Your task to perform on an android device: turn pop-ups off in chrome Image 0: 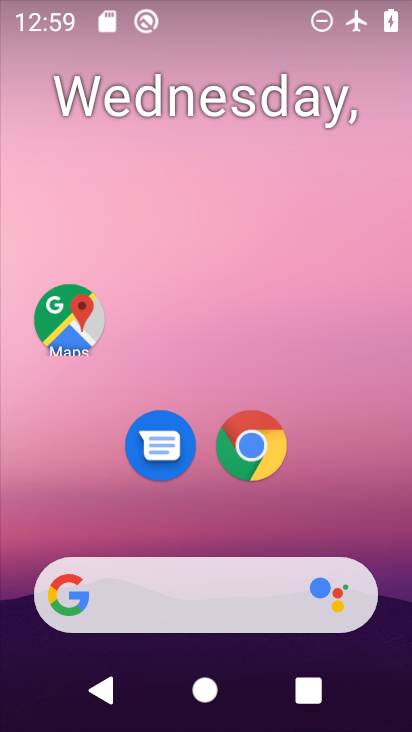
Step 0: drag from (390, 617) to (226, 63)
Your task to perform on an android device: turn pop-ups off in chrome Image 1: 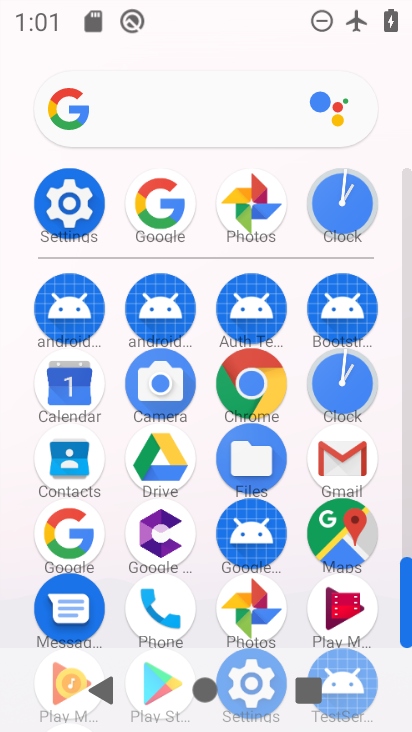
Step 1: click (255, 392)
Your task to perform on an android device: turn pop-ups off in chrome Image 2: 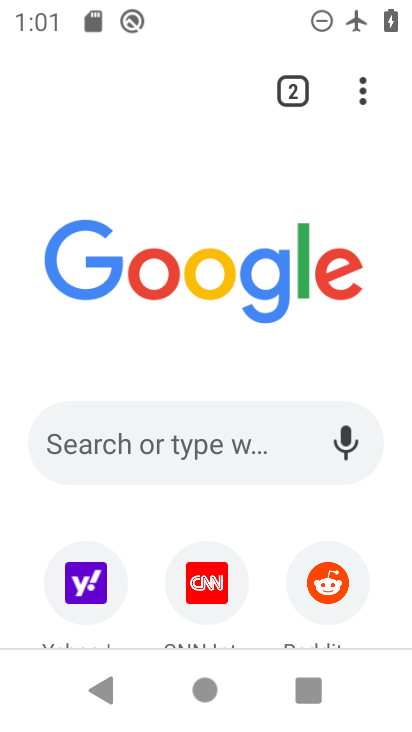
Step 2: click (362, 86)
Your task to perform on an android device: turn pop-ups off in chrome Image 3: 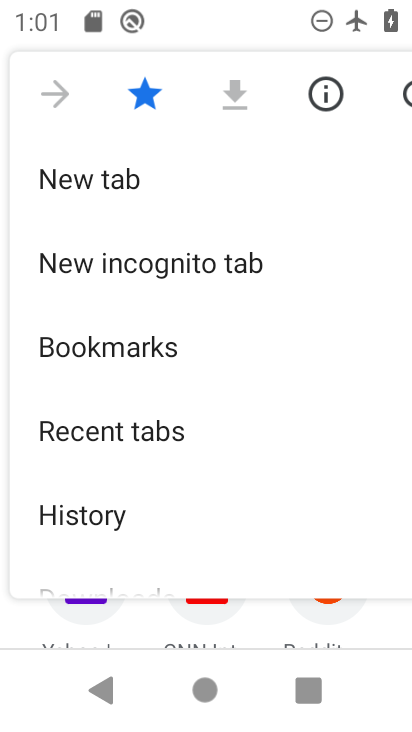
Step 3: drag from (106, 579) to (184, 57)
Your task to perform on an android device: turn pop-ups off in chrome Image 4: 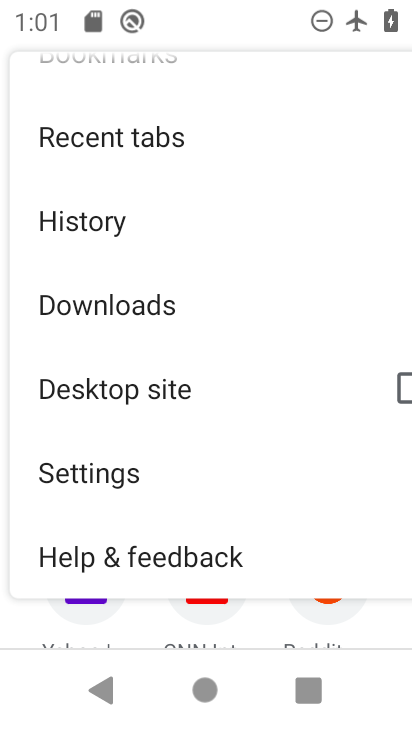
Step 4: click (148, 464)
Your task to perform on an android device: turn pop-ups off in chrome Image 5: 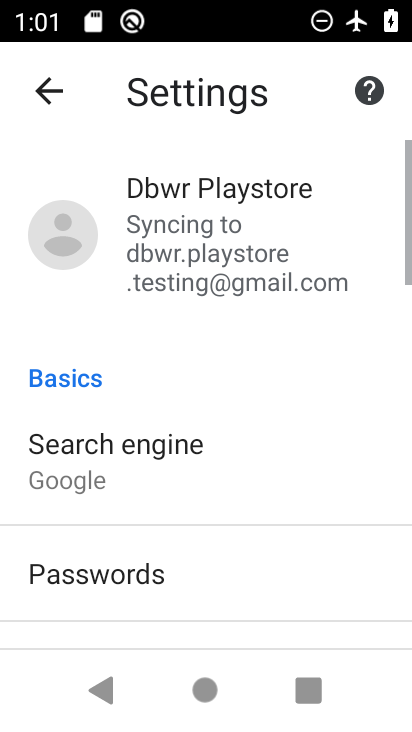
Step 5: drag from (145, 596) to (181, 16)
Your task to perform on an android device: turn pop-ups off in chrome Image 6: 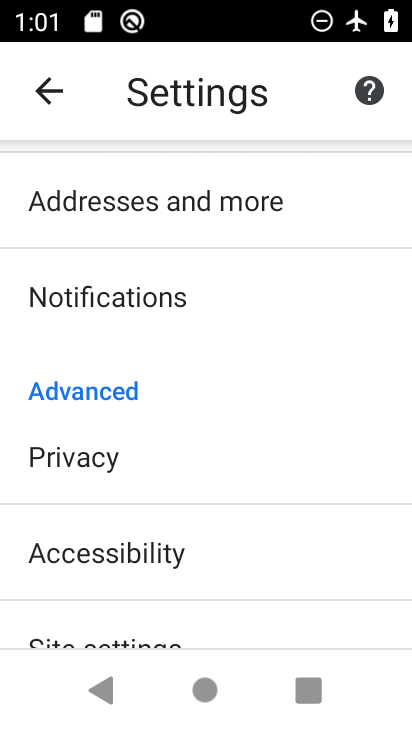
Step 6: click (123, 634)
Your task to perform on an android device: turn pop-ups off in chrome Image 7: 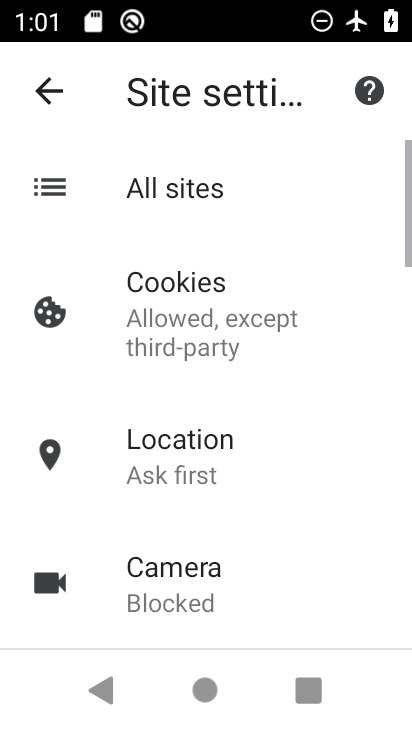
Step 7: drag from (184, 502) to (196, 111)
Your task to perform on an android device: turn pop-ups off in chrome Image 8: 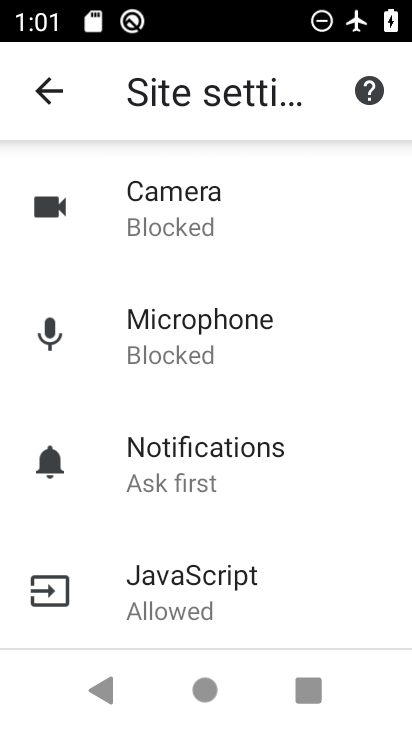
Step 8: drag from (166, 598) to (189, 164)
Your task to perform on an android device: turn pop-ups off in chrome Image 9: 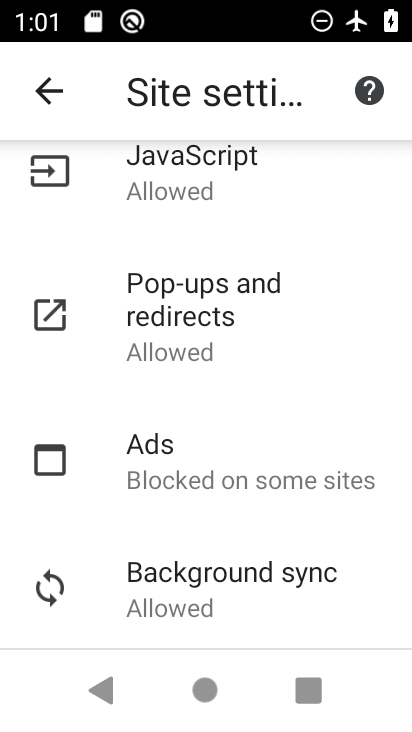
Step 9: click (198, 335)
Your task to perform on an android device: turn pop-ups off in chrome Image 10: 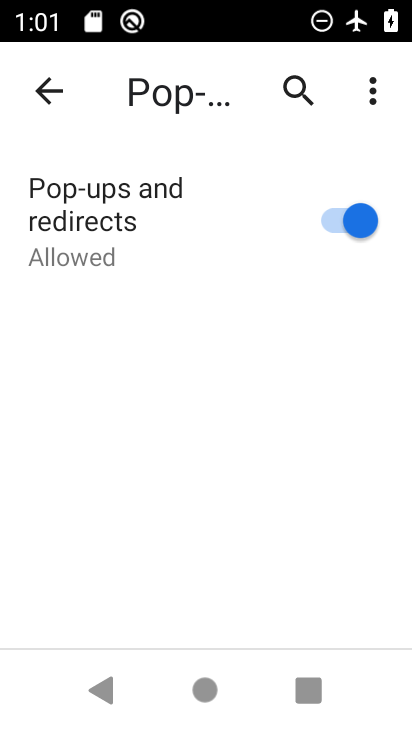
Step 10: click (345, 212)
Your task to perform on an android device: turn pop-ups off in chrome Image 11: 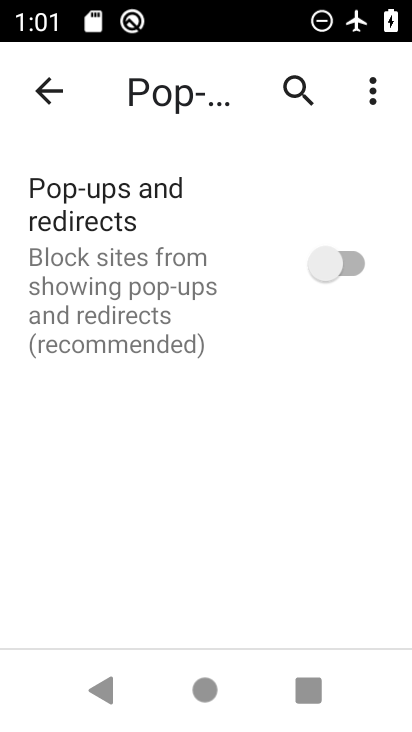
Step 11: task complete